Your task to perform on an android device: Is it going to rain today? Image 0: 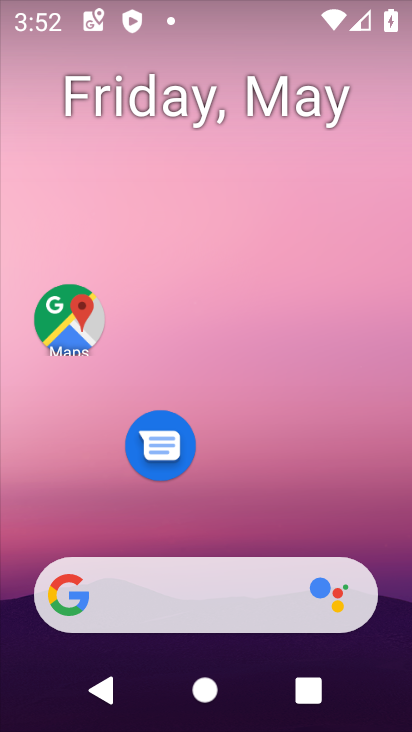
Step 0: drag from (221, 538) to (297, 102)
Your task to perform on an android device: Is it going to rain today? Image 1: 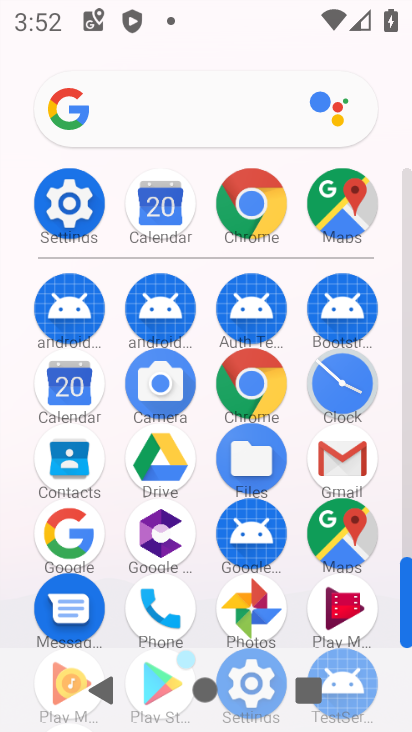
Step 1: click (208, 100)
Your task to perform on an android device: Is it going to rain today? Image 2: 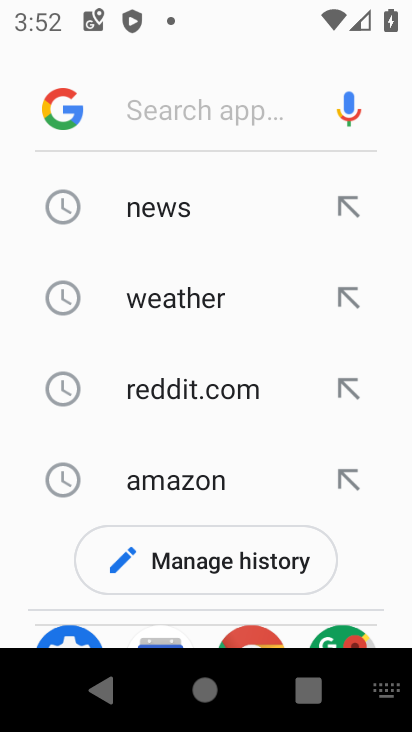
Step 2: click (167, 320)
Your task to perform on an android device: Is it going to rain today? Image 3: 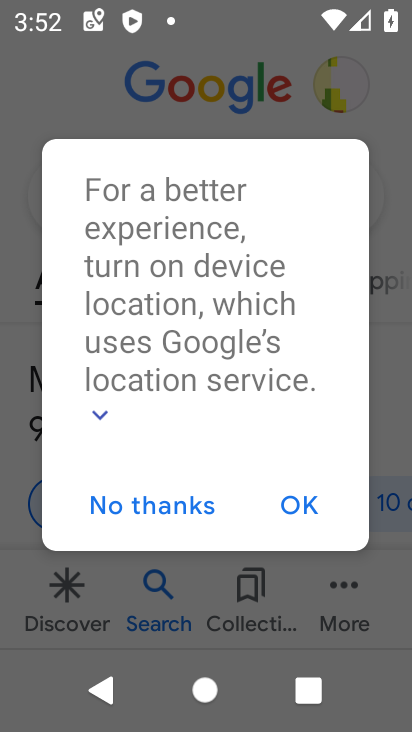
Step 3: click (308, 506)
Your task to perform on an android device: Is it going to rain today? Image 4: 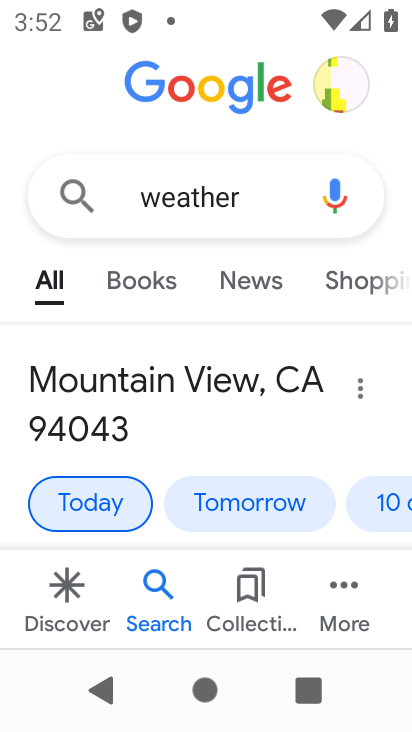
Step 4: task complete